Your task to perform on an android device: turn on airplane mode Image 0: 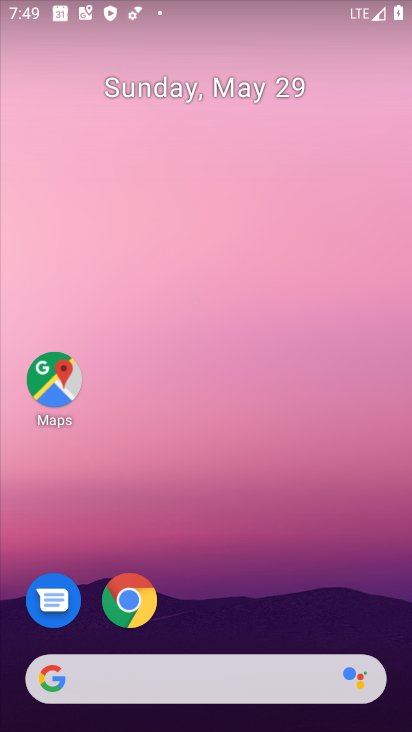
Step 0: drag from (221, 626) to (200, 6)
Your task to perform on an android device: turn on airplane mode Image 1: 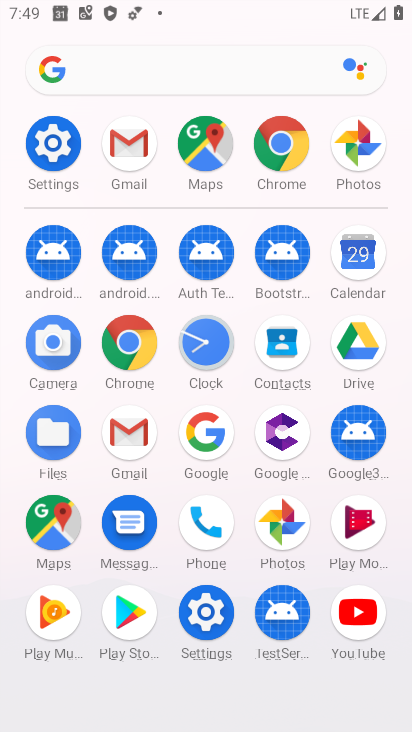
Step 1: click (59, 165)
Your task to perform on an android device: turn on airplane mode Image 2: 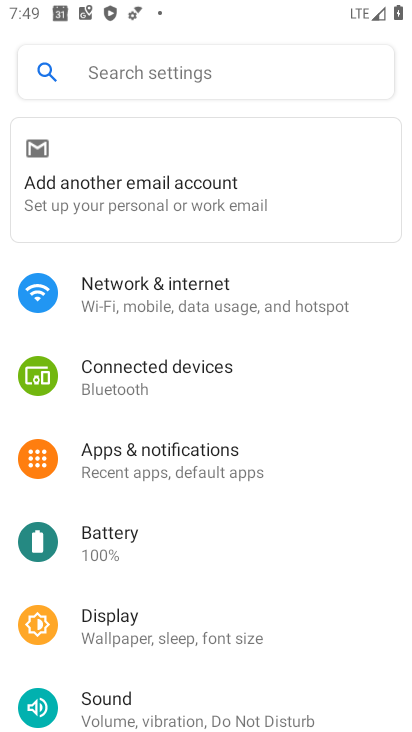
Step 2: click (219, 307)
Your task to perform on an android device: turn on airplane mode Image 3: 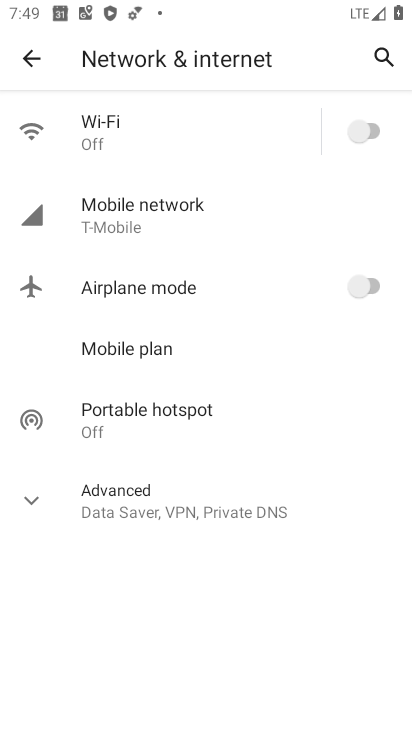
Step 3: click (384, 283)
Your task to perform on an android device: turn on airplane mode Image 4: 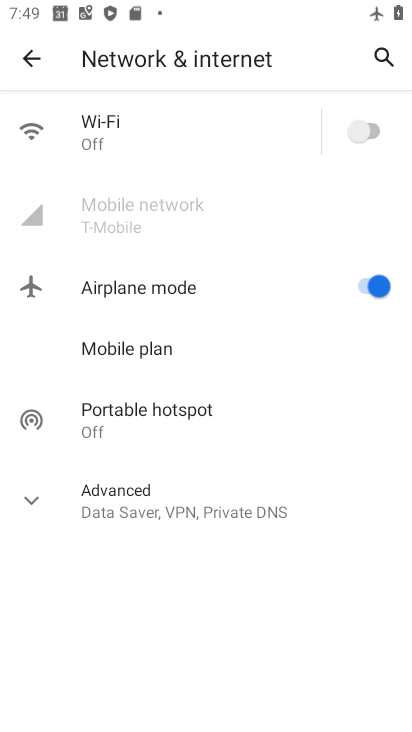
Step 4: task complete